Your task to perform on an android device: find photos in the google photos app Image 0: 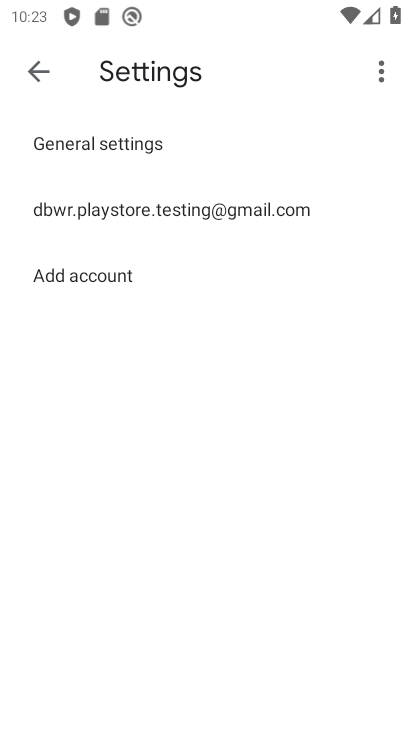
Step 0: press home button
Your task to perform on an android device: find photos in the google photos app Image 1: 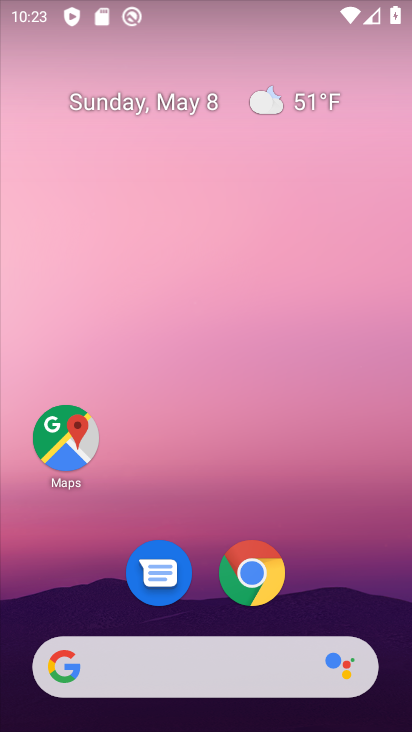
Step 1: drag from (226, 625) to (263, 254)
Your task to perform on an android device: find photos in the google photos app Image 2: 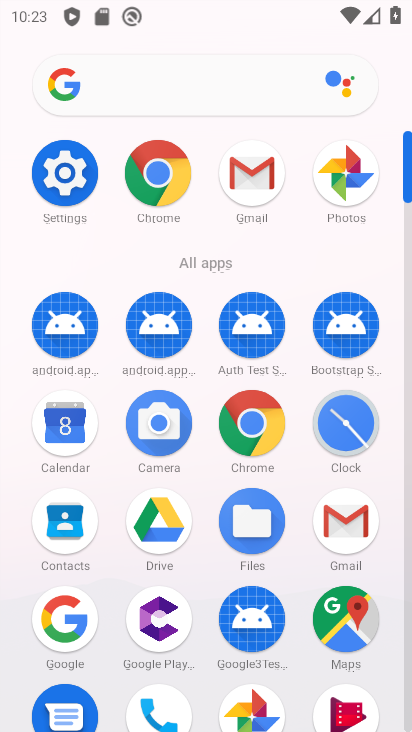
Step 2: click (248, 715)
Your task to perform on an android device: find photos in the google photos app Image 3: 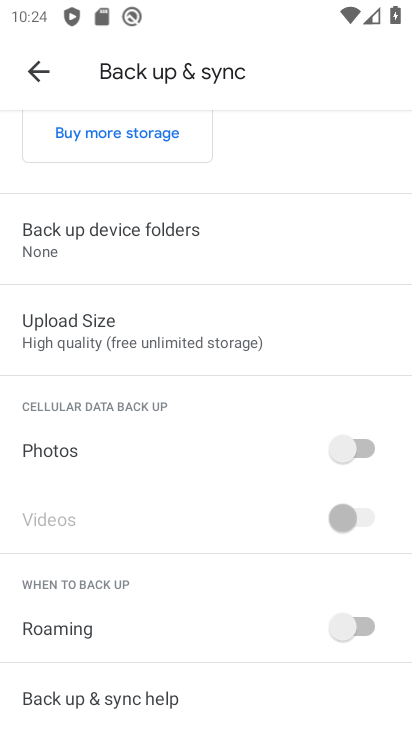
Step 3: click (37, 76)
Your task to perform on an android device: find photos in the google photos app Image 4: 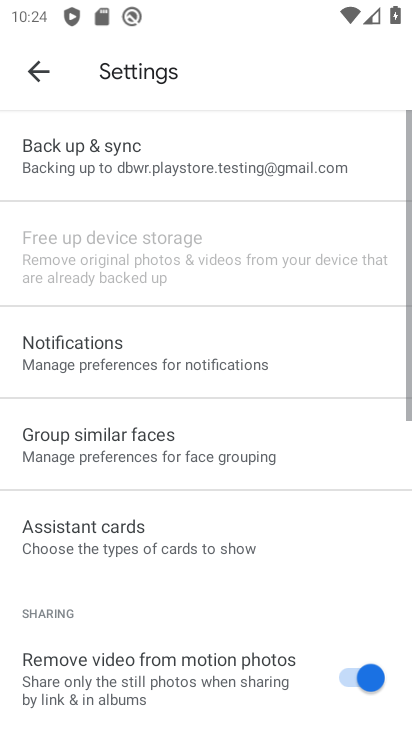
Step 4: click (37, 76)
Your task to perform on an android device: find photos in the google photos app Image 5: 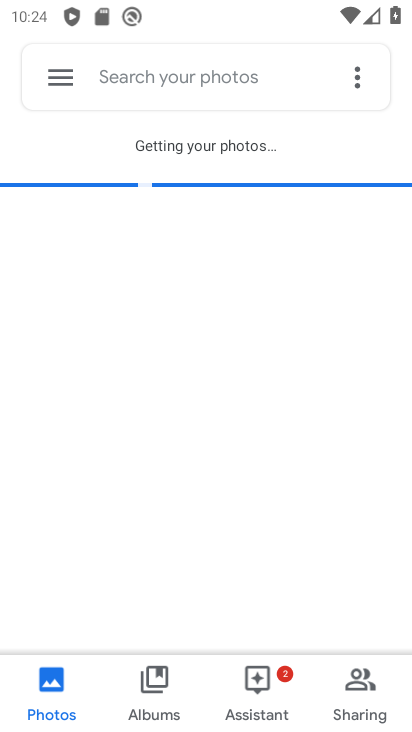
Step 5: click (128, 81)
Your task to perform on an android device: find photos in the google photos app Image 6: 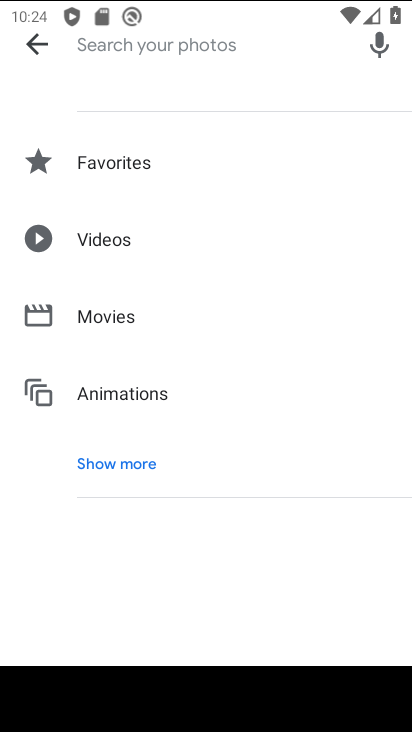
Step 6: type "album 09"
Your task to perform on an android device: find photos in the google photos app Image 7: 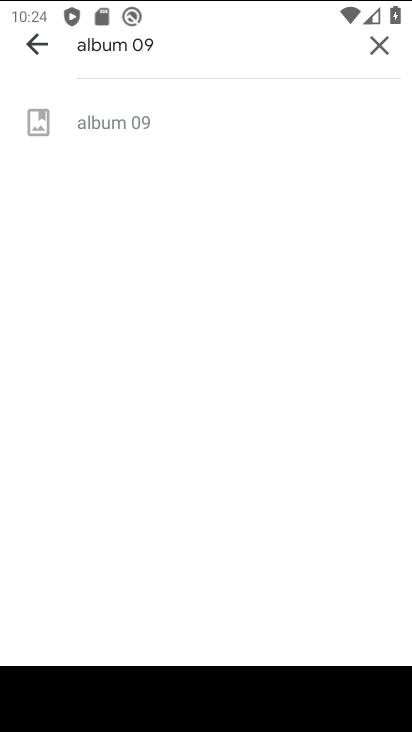
Step 7: click (76, 119)
Your task to perform on an android device: find photos in the google photos app Image 8: 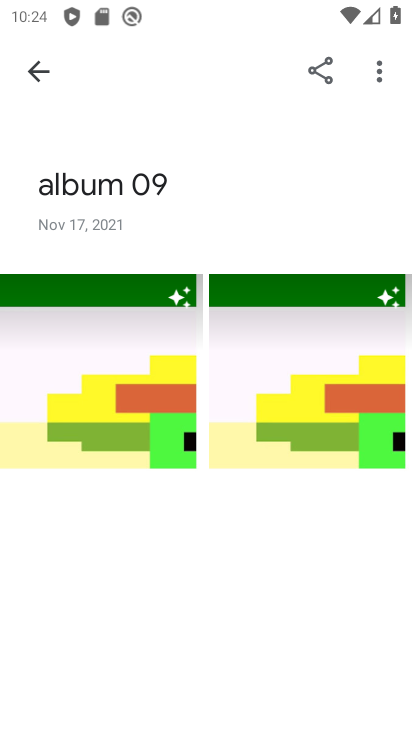
Step 8: task complete